Your task to perform on an android device: all mails in gmail Image 0: 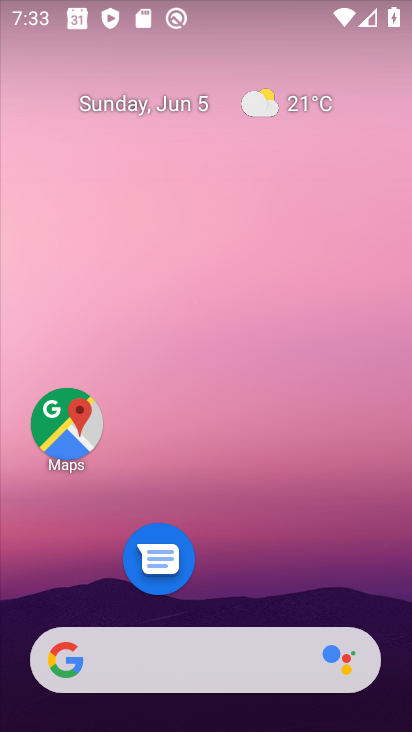
Step 0: drag from (249, 625) to (150, 73)
Your task to perform on an android device: all mails in gmail Image 1: 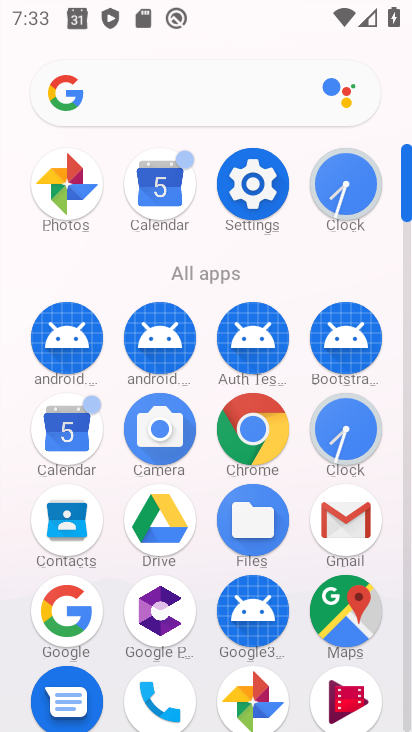
Step 1: click (349, 508)
Your task to perform on an android device: all mails in gmail Image 2: 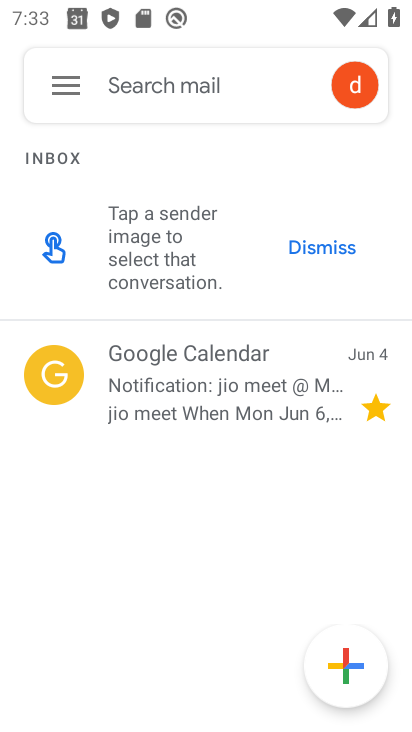
Step 2: click (65, 77)
Your task to perform on an android device: all mails in gmail Image 3: 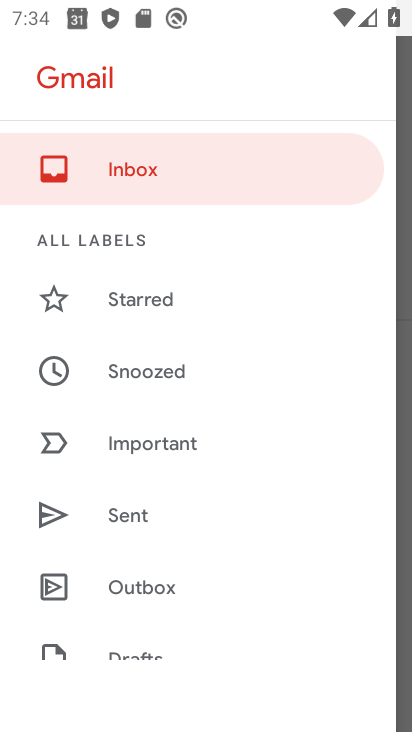
Step 3: drag from (164, 581) to (95, 193)
Your task to perform on an android device: all mails in gmail Image 4: 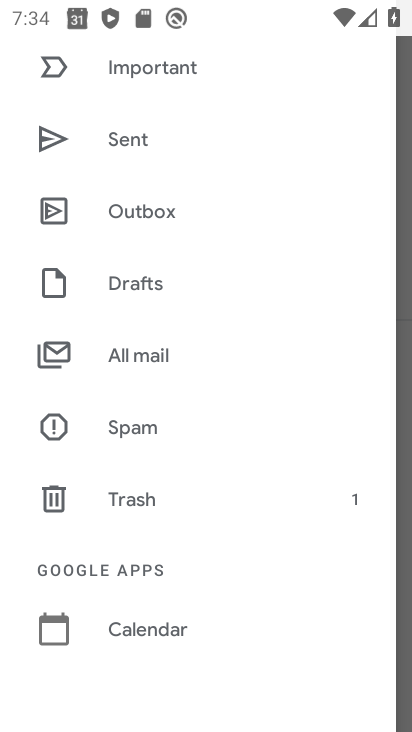
Step 4: click (129, 363)
Your task to perform on an android device: all mails in gmail Image 5: 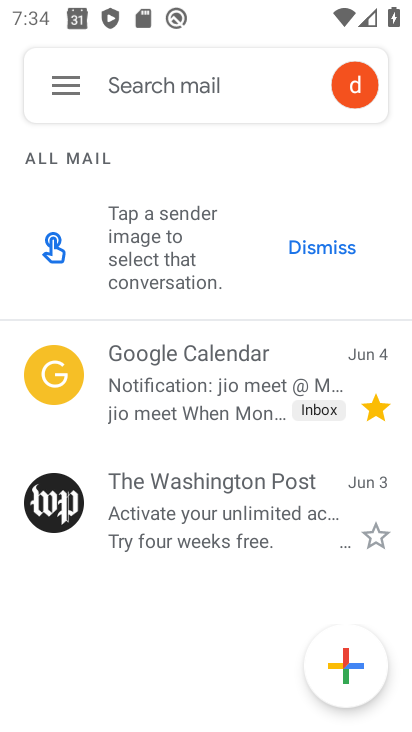
Step 5: task complete